Your task to perform on an android device: manage bookmarks in the chrome app Image 0: 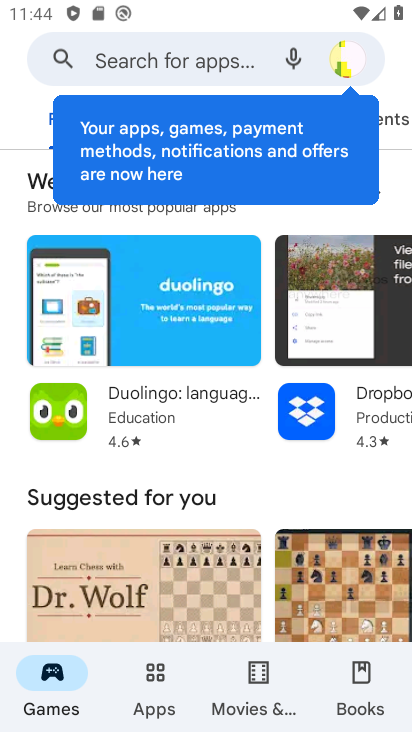
Step 0: press back button
Your task to perform on an android device: manage bookmarks in the chrome app Image 1: 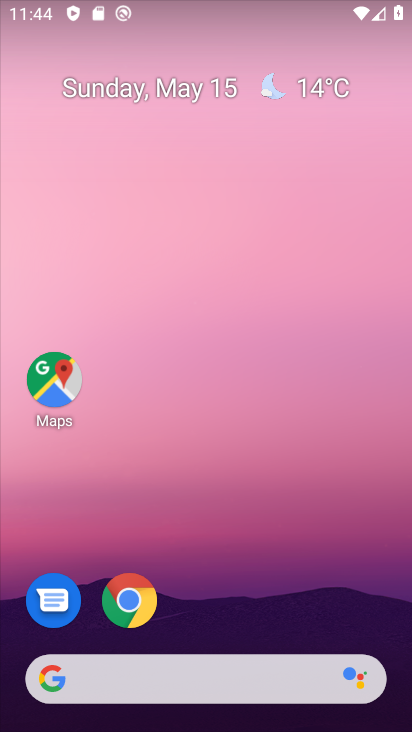
Step 1: click (130, 597)
Your task to perform on an android device: manage bookmarks in the chrome app Image 2: 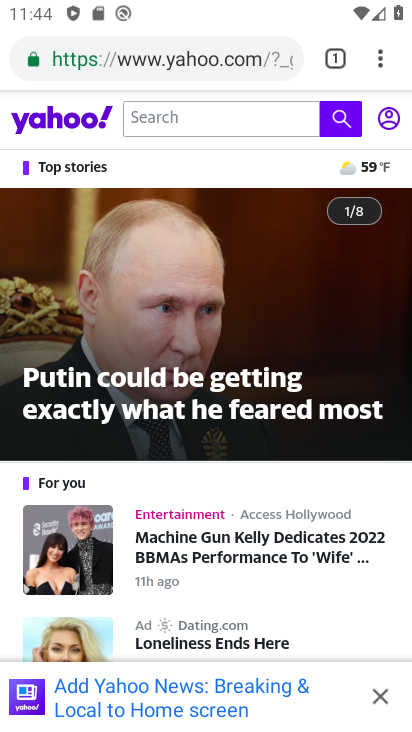
Step 2: task complete